Your task to perform on an android device: Search for Mexican restaurants on Maps Image 0: 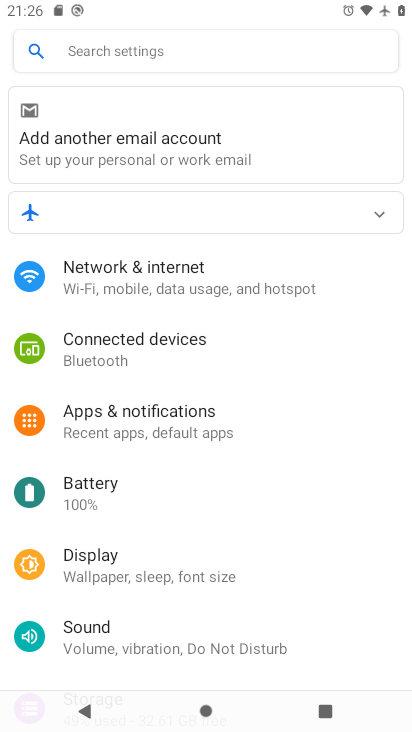
Step 0: press home button
Your task to perform on an android device: Search for Mexican restaurants on Maps Image 1: 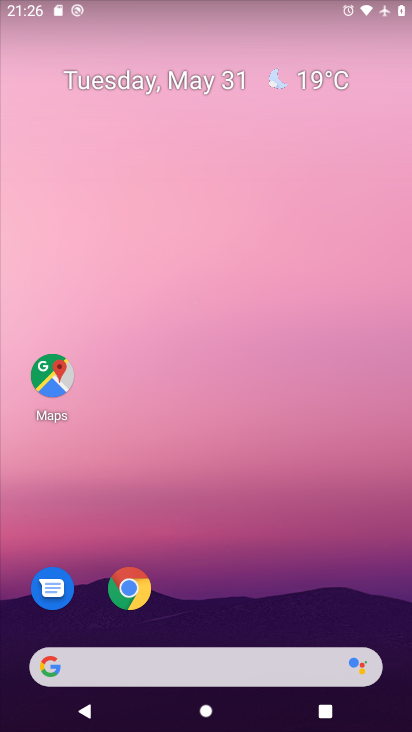
Step 1: click (57, 378)
Your task to perform on an android device: Search for Mexican restaurants on Maps Image 2: 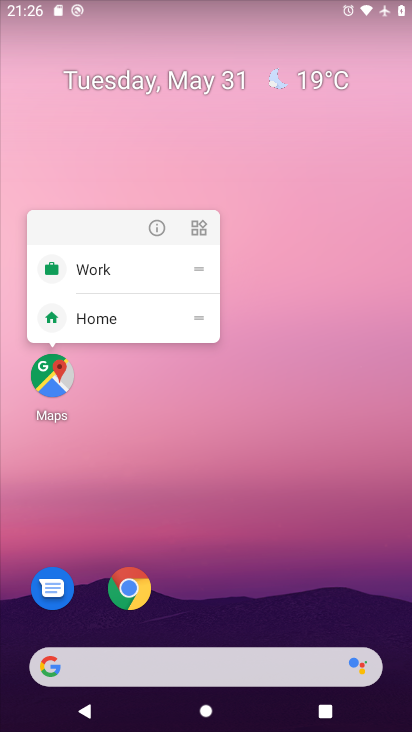
Step 2: click (47, 379)
Your task to perform on an android device: Search for Mexican restaurants on Maps Image 3: 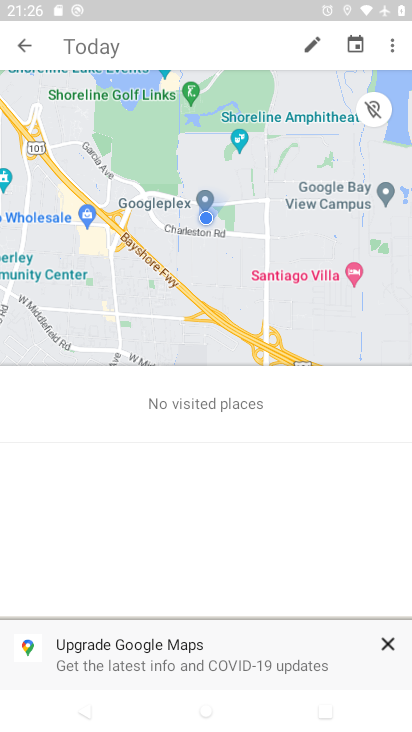
Step 3: click (21, 44)
Your task to perform on an android device: Search for Mexican restaurants on Maps Image 4: 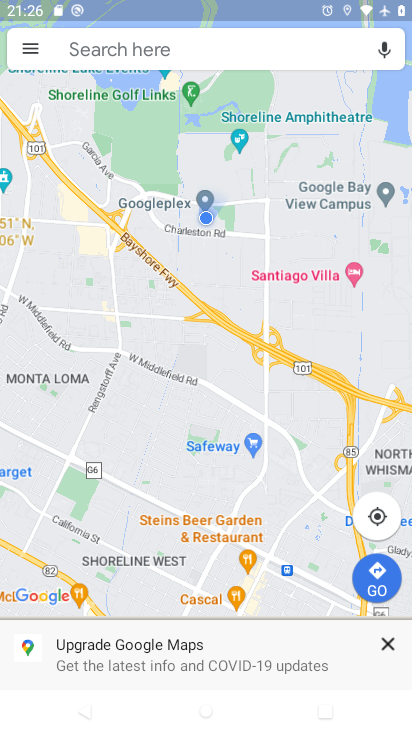
Step 4: click (156, 50)
Your task to perform on an android device: Search for Mexican restaurants on Maps Image 5: 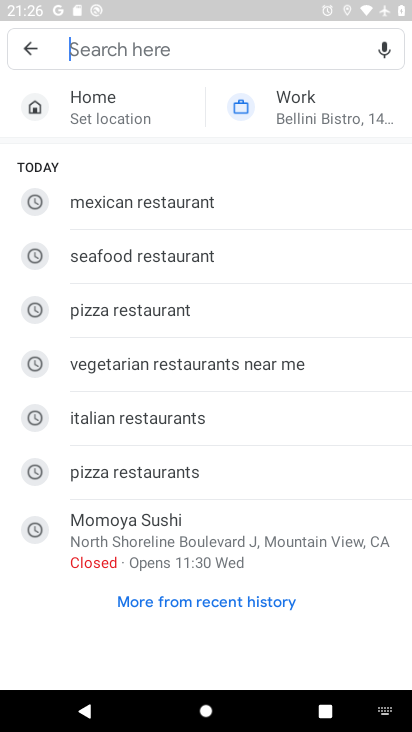
Step 5: click (168, 201)
Your task to perform on an android device: Search for Mexican restaurants on Maps Image 6: 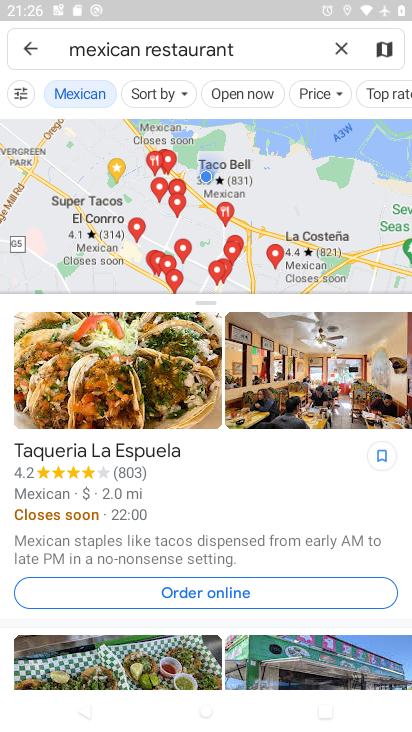
Step 6: task complete